Your task to perform on an android device: Open Google Chrome and open the bookmarks view Image 0: 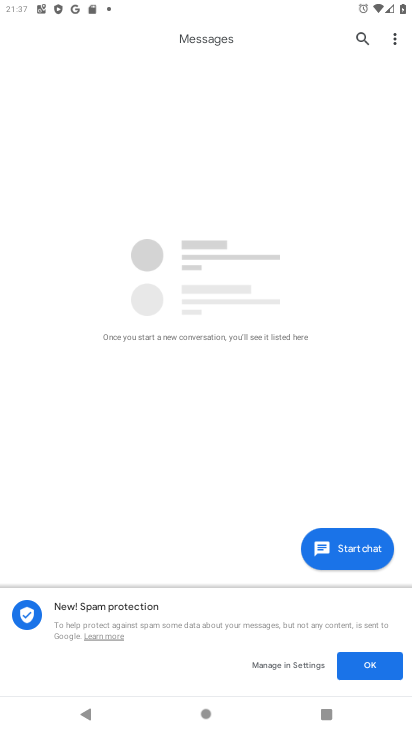
Step 0: press home button
Your task to perform on an android device: Open Google Chrome and open the bookmarks view Image 1: 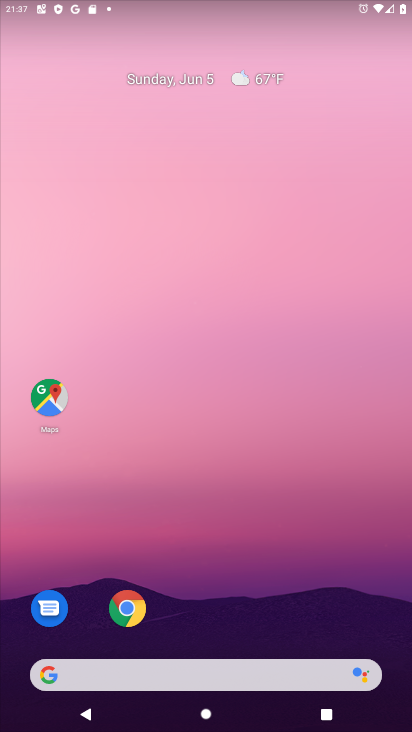
Step 1: click (132, 608)
Your task to perform on an android device: Open Google Chrome and open the bookmarks view Image 2: 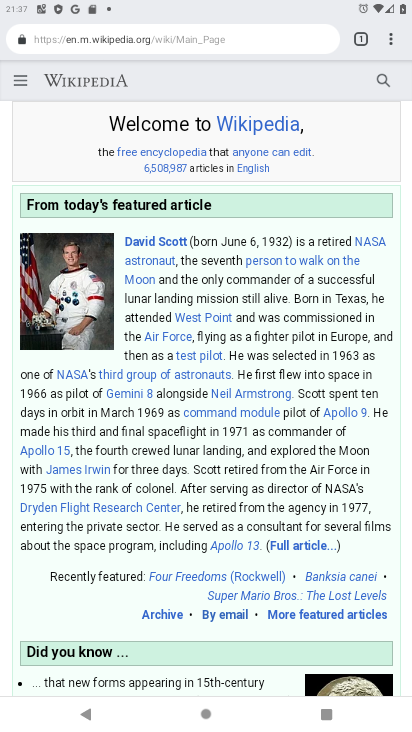
Step 2: click (388, 38)
Your task to perform on an android device: Open Google Chrome and open the bookmarks view Image 3: 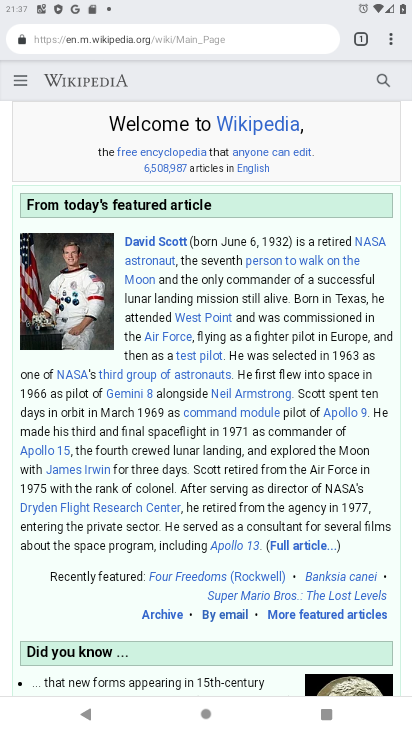
Step 3: click (392, 37)
Your task to perform on an android device: Open Google Chrome and open the bookmarks view Image 4: 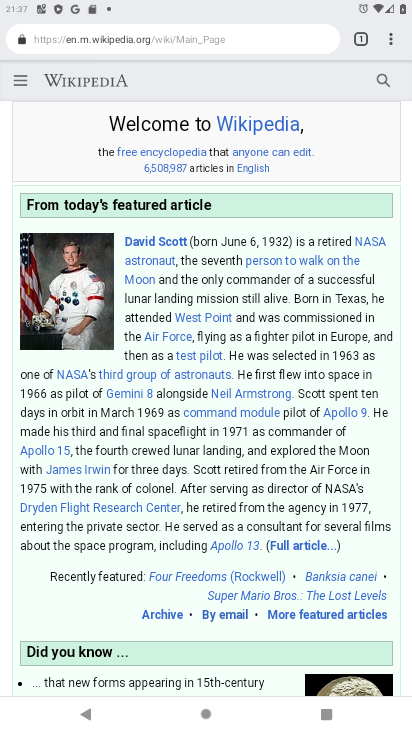
Step 4: click (392, 37)
Your task to perform on an android device: Open Google Chrome and open the bookmarks view Image 5: 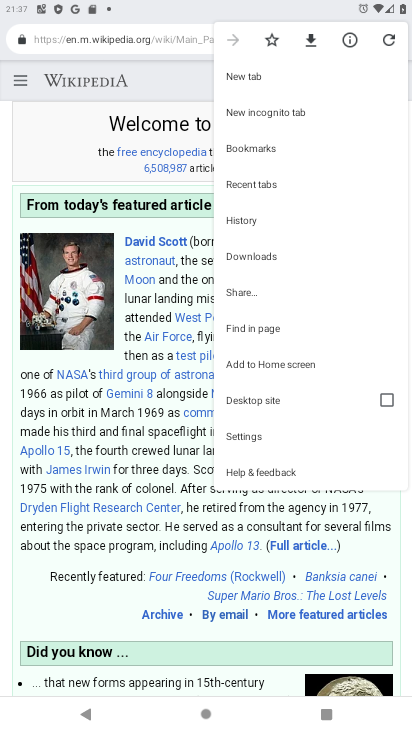
Step 5: click (261, 146)
Your task to perform on an android device: Open Google Chrome and open the bookmarks view Image 6: 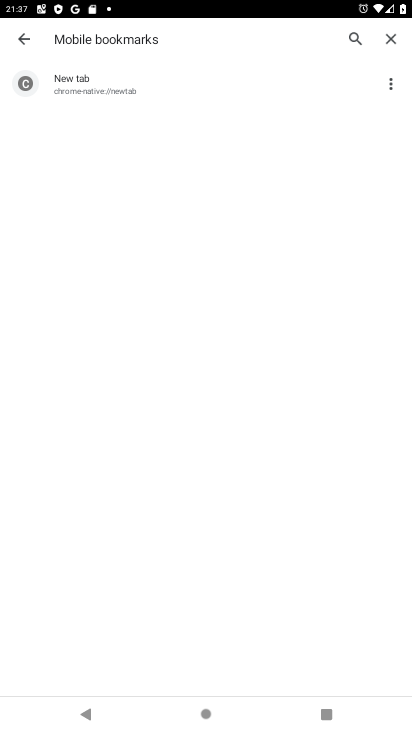
Step 6: task complete